Your task to perform on an android device: visit the assistant section in the google photos Image 0: 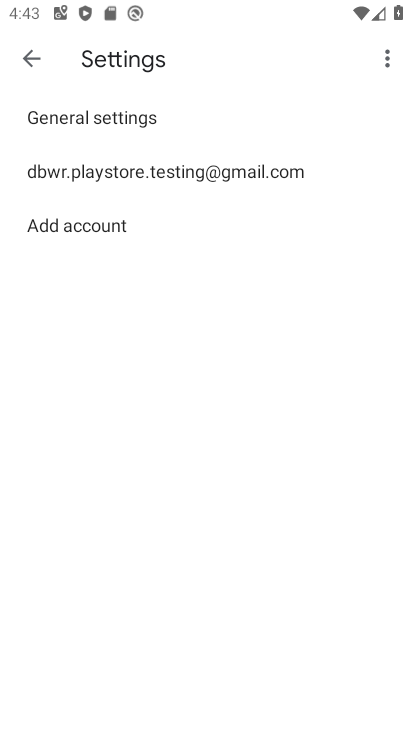
Step 0: press home button
Your task to perform on an android device: visit the assistant section in the google photos Image 1: 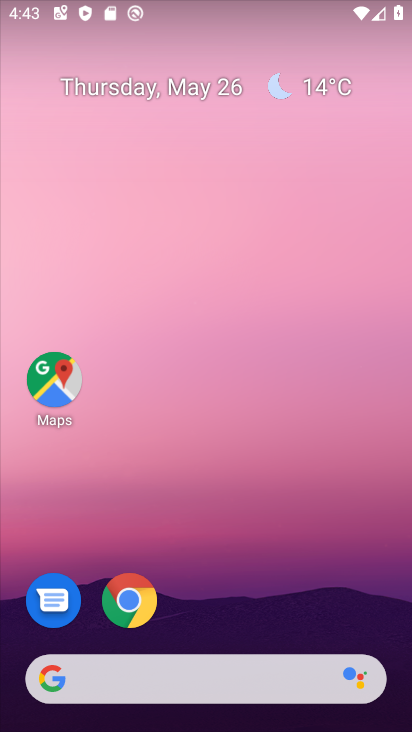
Step 1: drag from (288, 345) to (266, 173)
Your task to perform on an android device: visit the assistant section in the google photos Image 2: 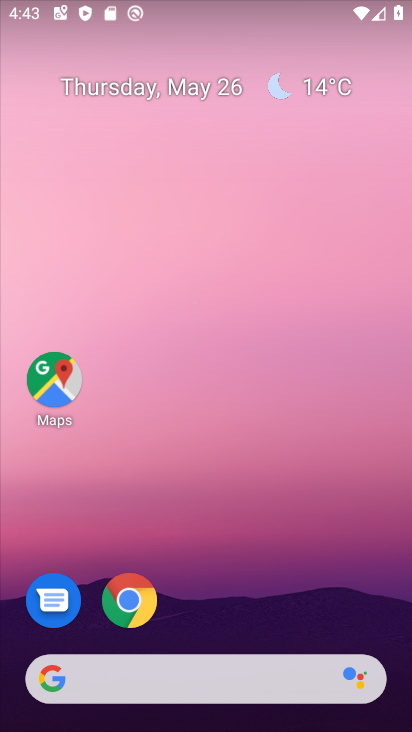
Step 2: drag from (196, 622) to (204, 141)
Your task to perform on an android device: visit the assistant section in the google photos Image 3: 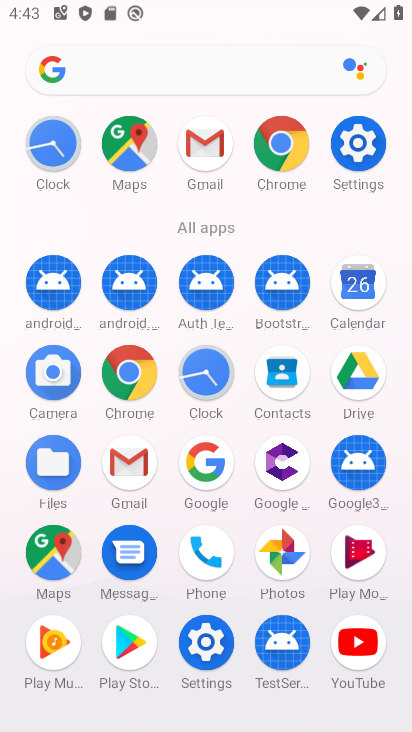
Step 3: drag from (174, 622) to (201, 61)
Your task to perform on an android device: visit the assistant section in the google photos Image 4: 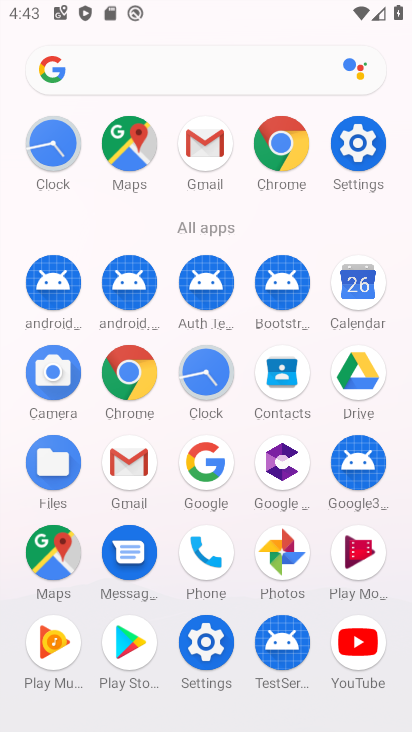
Step 4: click (280, 554)
Your task to perform on an android device: visit the assistant section in the google photos Image 5: 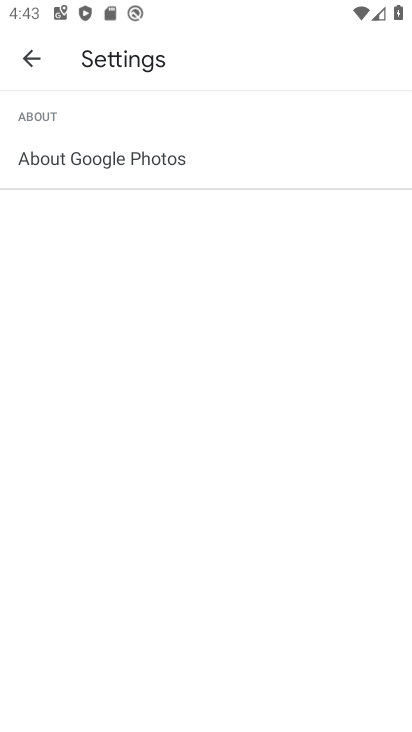
Step 5: click (34, 65)
Your task to perform on an android device: visit the assistant section in the google photos Image 6: 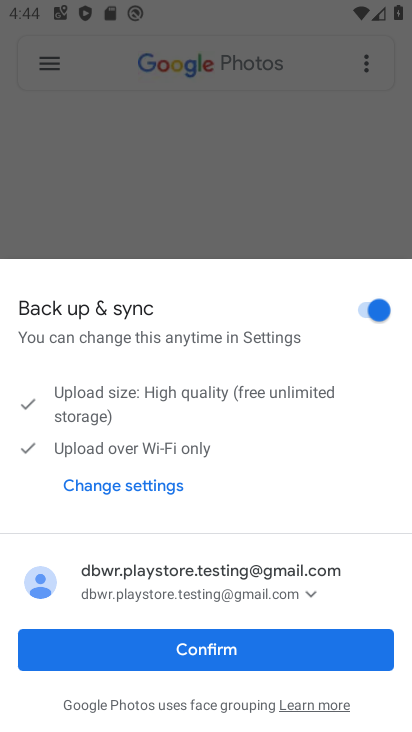
Step 6: click (186, 661)
Your task to perform on an android device: visit the assistant section in the google photos Image 7: 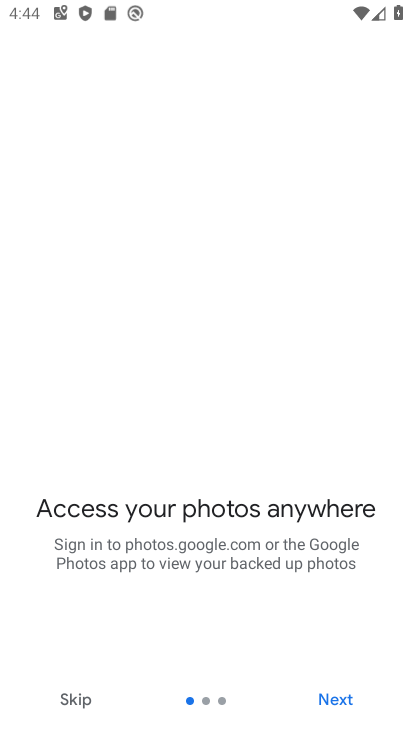
Step 7: click (346, 694)
Your task to perform on an android device: visit the assistant section in the google photos Image 8: 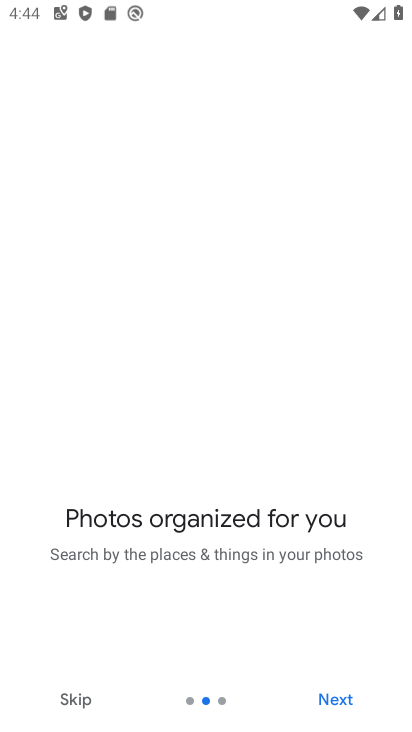
Step 8: click (346, 694)
Your task to perform on an android device: visit the assistant section in the google photos Image 9: 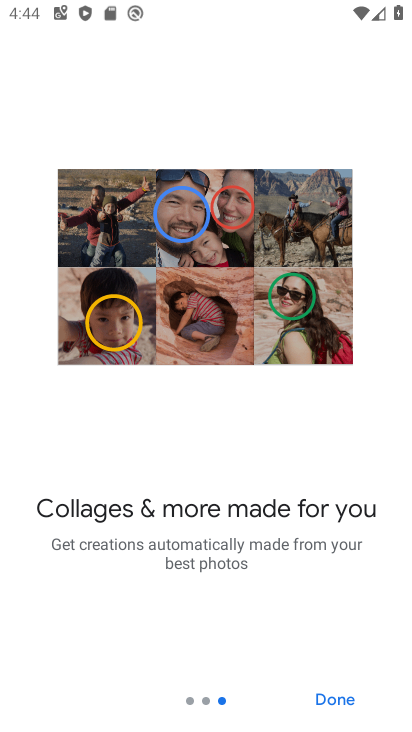
Step 9: click (346, 694)
Your task to perform on an android device: visit the assistant section in the google photos Image 10: 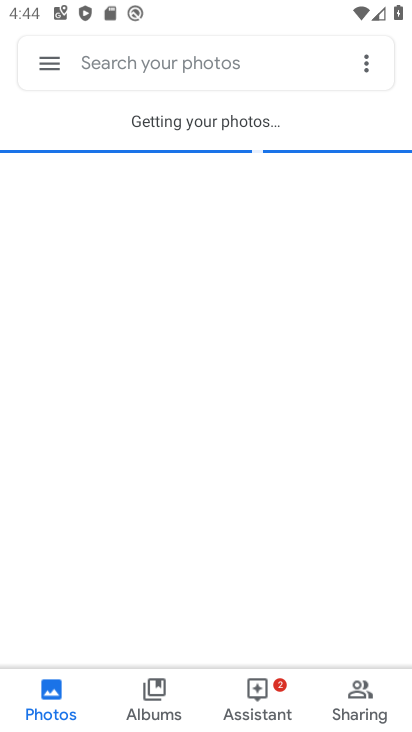
Step 10: click (265, 676)
Your task to perform on an android device: visit the assistant section in the google photos Image 11: 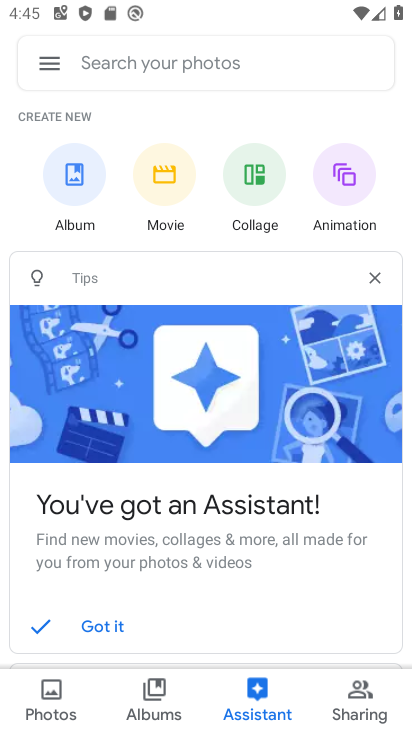
Step 11: task complete